Your task to perform on an android device: turn on javascript in the chrome app Image 0: 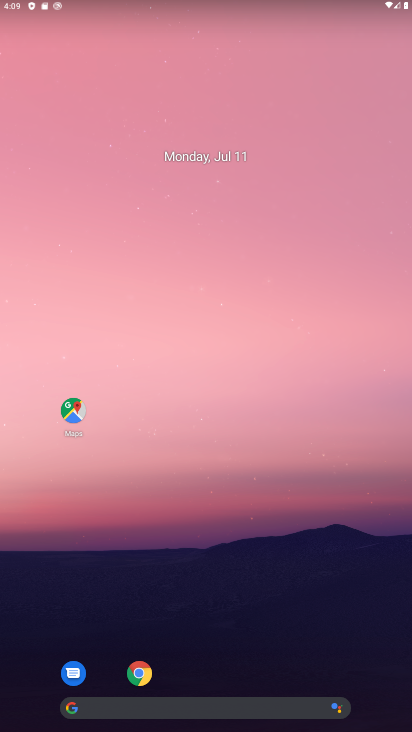
Step 0: click (138, 674)
Your task to perform on an android device: turn on javascript in the chrome app Image 1: 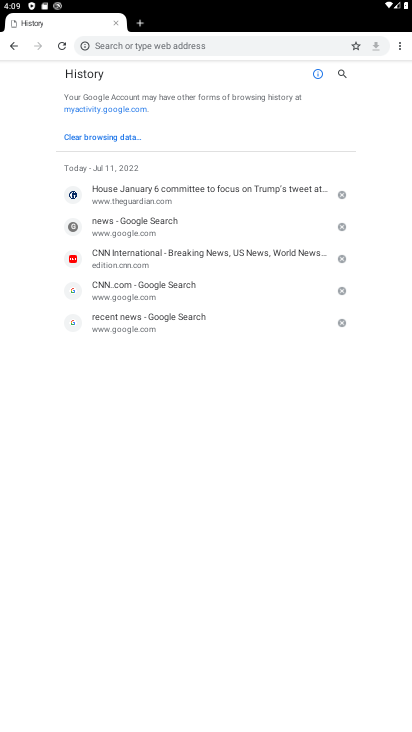
Step 1: click (399, 48)
Your task to perform on an android device: turn on javascript in the chrome app Image 2: 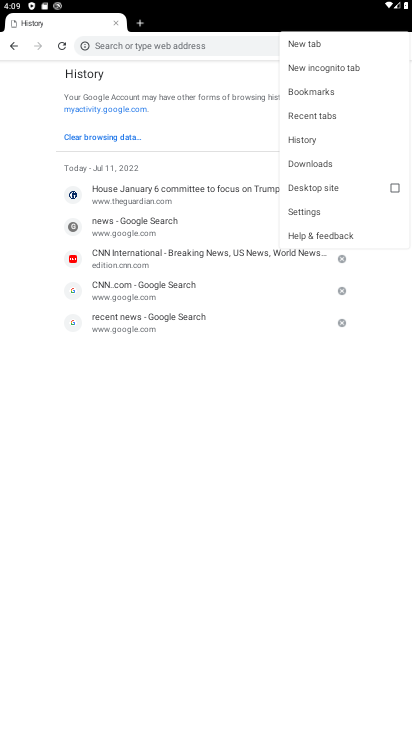
Step 2: click (306, 209)
Your task to perform on an android device: turn on javascript in the chrome app Image 3: 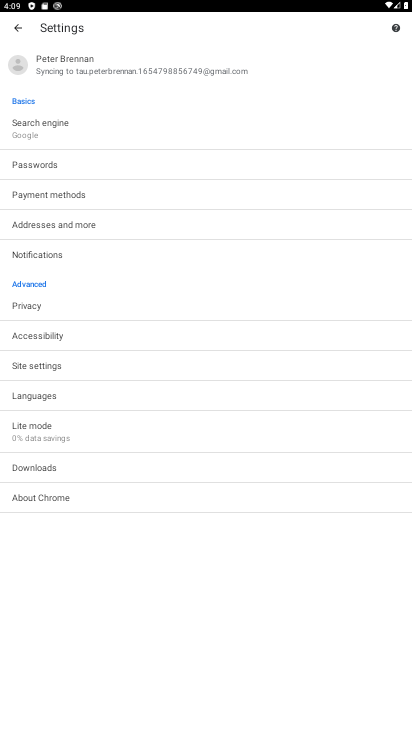
Step 3: click (46, 366)
Your task to perform on an android device: turn on javascript in the chrome app Image 4: 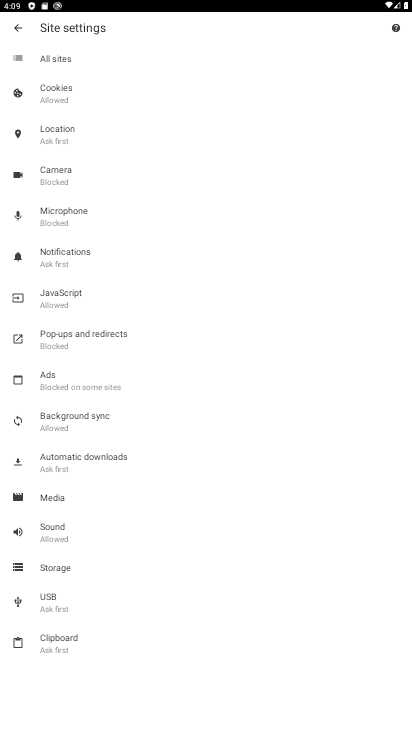
Step 4: click (67, 293)
Your task to perform on an android device: turn on javascript in the chrome app Image 5: 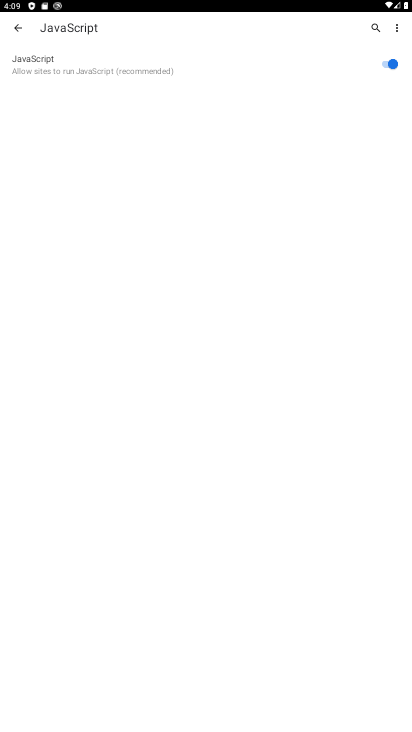
Step 5: task complete